Your task to perform on an android device: Open Android settings Image 0: 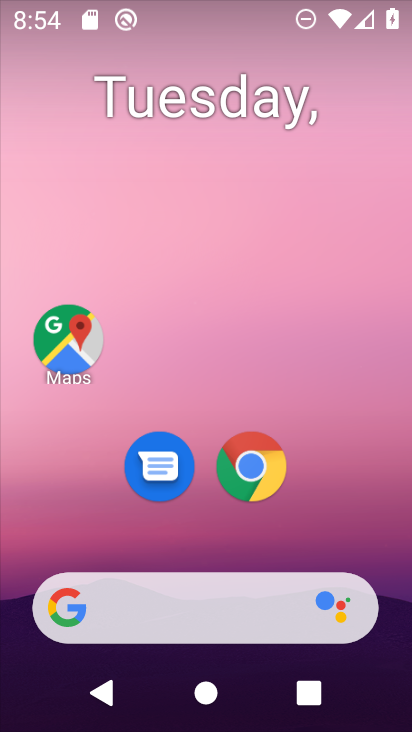
Step 0: drag from (207, 534) to (186, 0)
Your task to perform on an android device: Open Android settings Image 1: 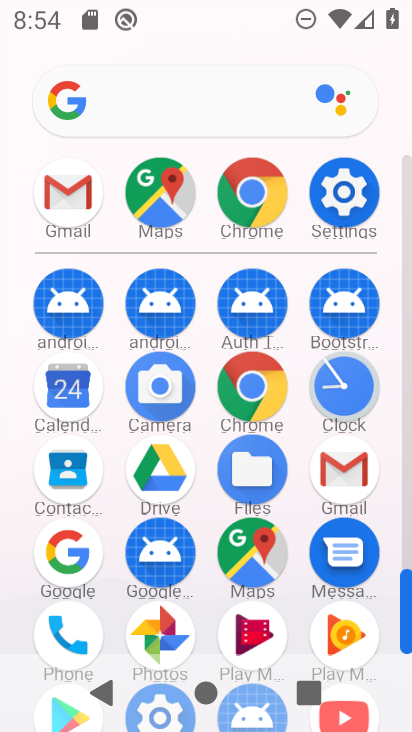
Step 1: click (350, 211)
Your task to perform on an android device: Open Android settings Image 2: 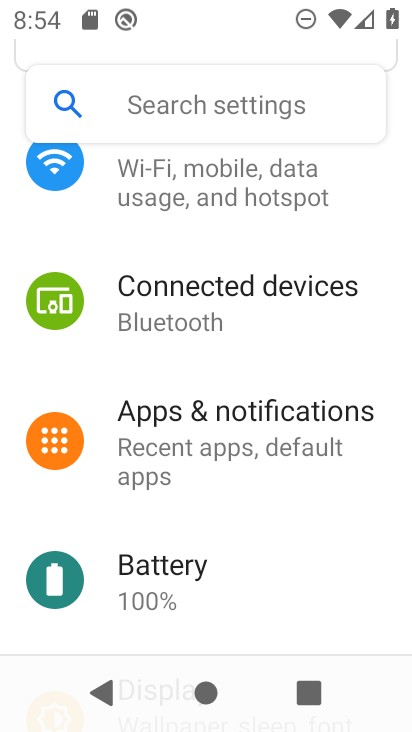
Step 2: drag from (201, 471) to (287, 22)
Your task to perform on an android device: Open Android settings Image 3: 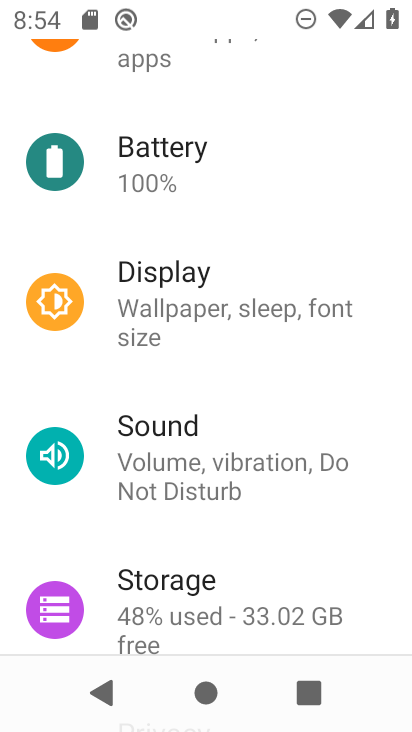
Step 3: drag from (243, 594) to (319, 4)
Your task to perform on an android device: Open Android settings Image 4: 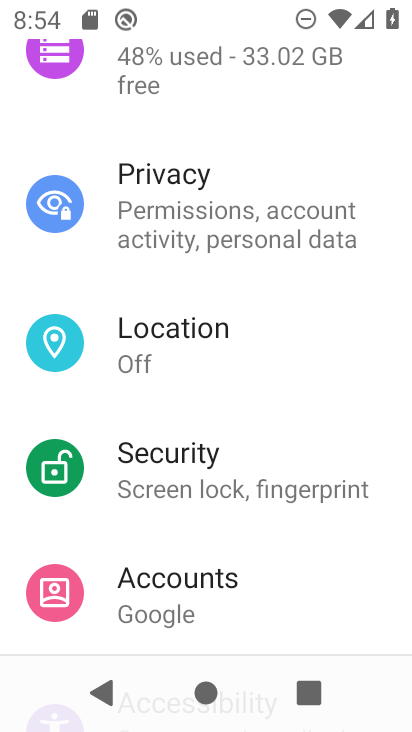
Step 4: drag from (196, 597) to (240, 101)
Your task to perform on an android device: Open Android settings Image 5: 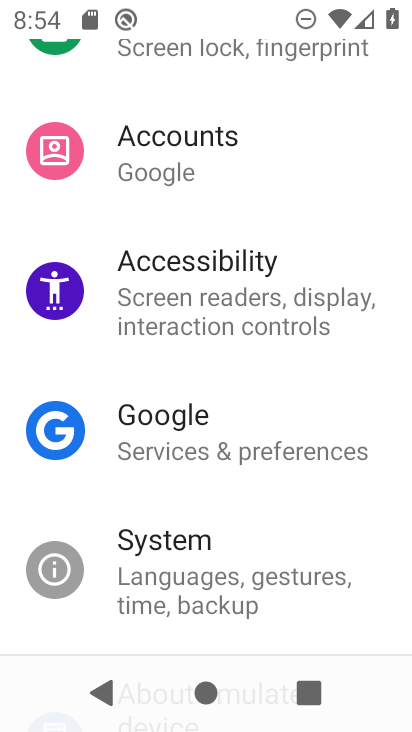
Step 5: drag from (125, 581) to (139, 138)
Your task to perform on an android device: Open Android settings Image 6: 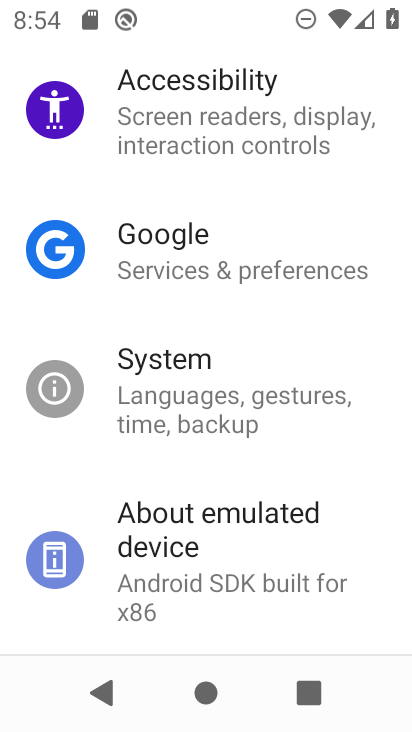
Step 6: click (206, 561)
Your task to perform on an android device: Open Android settings Image 7: 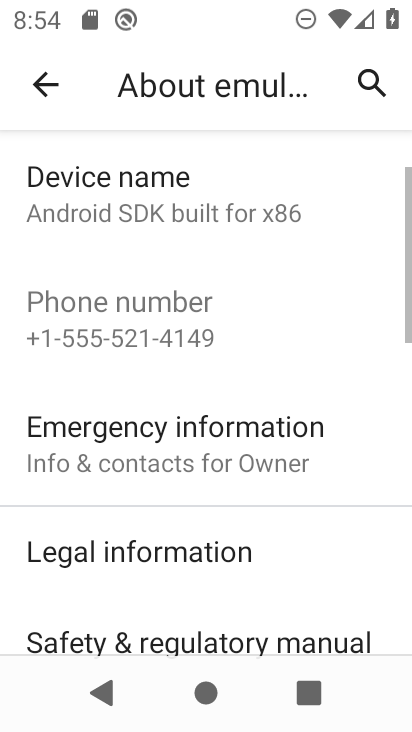
Step 7: drag from (183, 557) to (251, 92)
Your task to perform on an android device: Open Android settings Image 8: 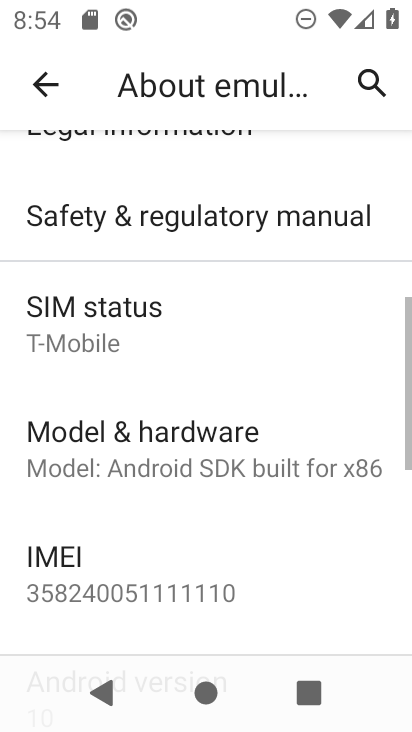
Step 8: drag from (211, 529) to (231, 0)
Your task to perform on an android device: Open Android settings Image 9: 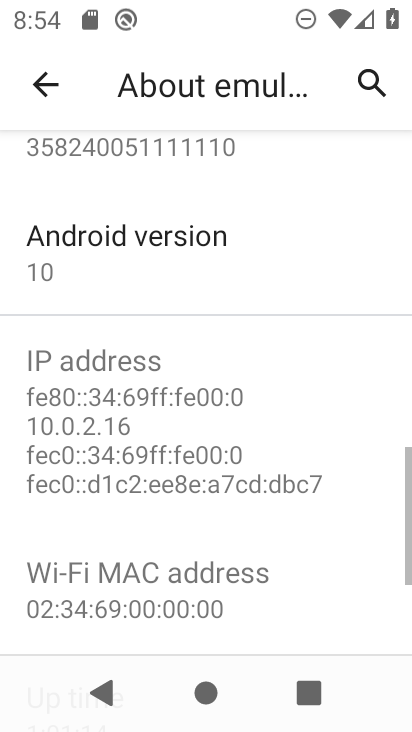
Step 9: click (155, 270)
Your task to perform on an android device: Open Android settings Image 10: 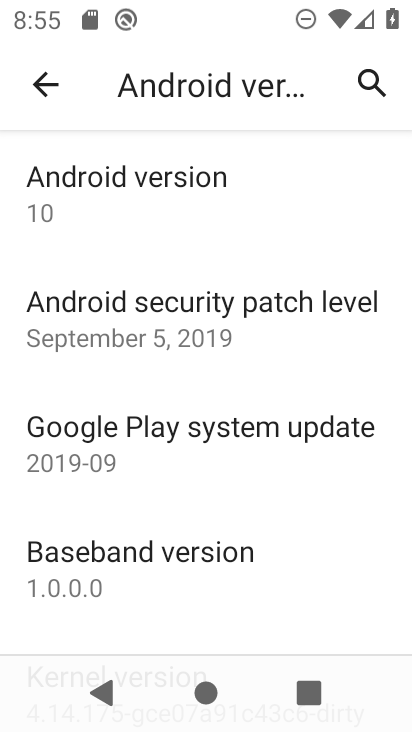
Step 10: task complete